Your task to perform on an android device: turn off improve location accuracy Image 0: 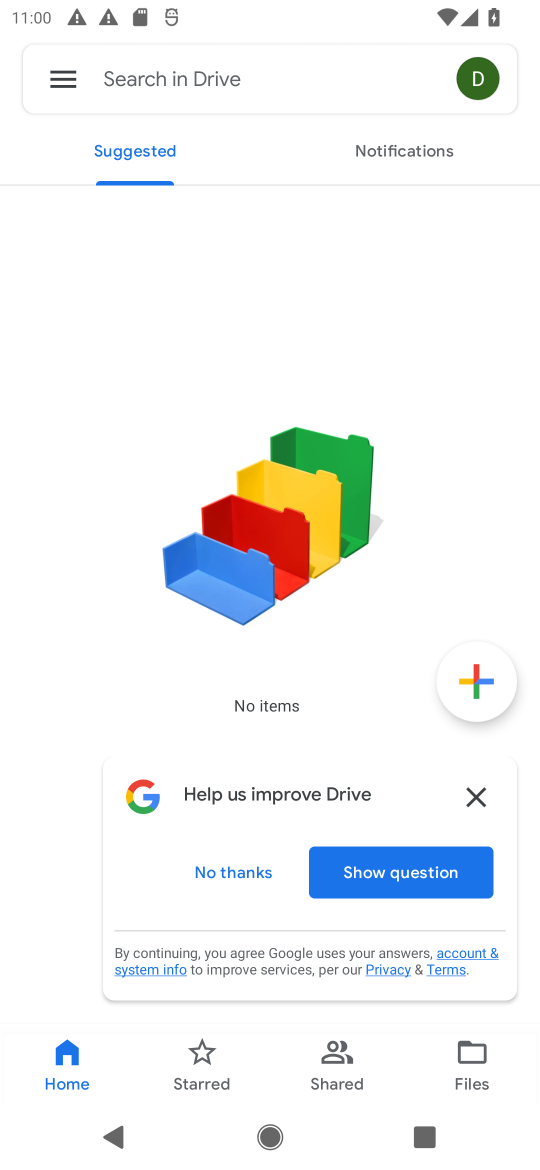
Step 0: press home button
Your task to perform on an android device: turn off improve location accuracy Image 1: 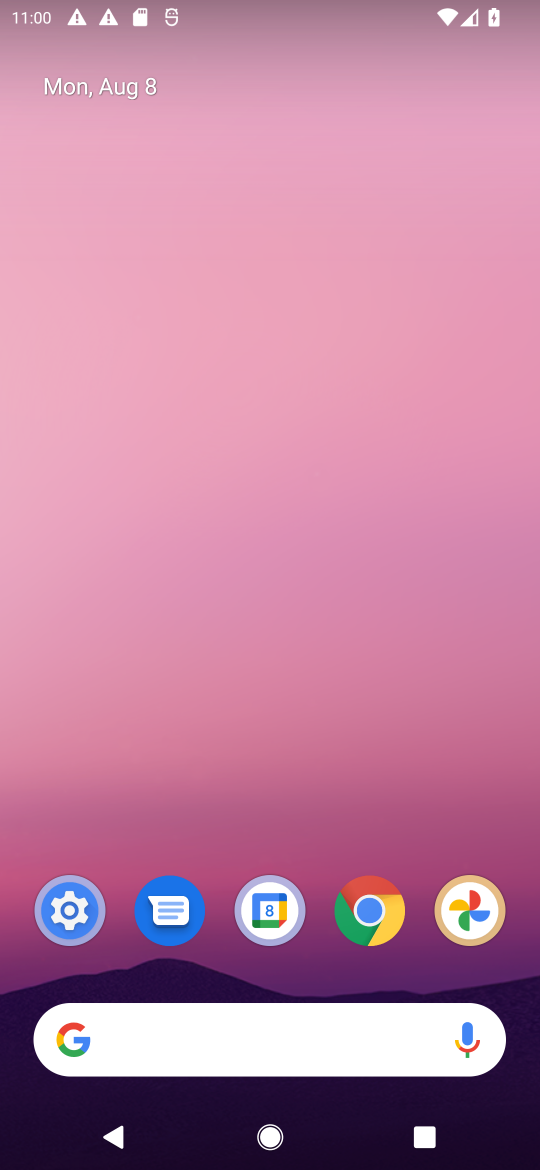
Step 1: drag from (285, 976) to (263, 10)
Your task to perform on an android device: turn off improve location accuracy Image 2: 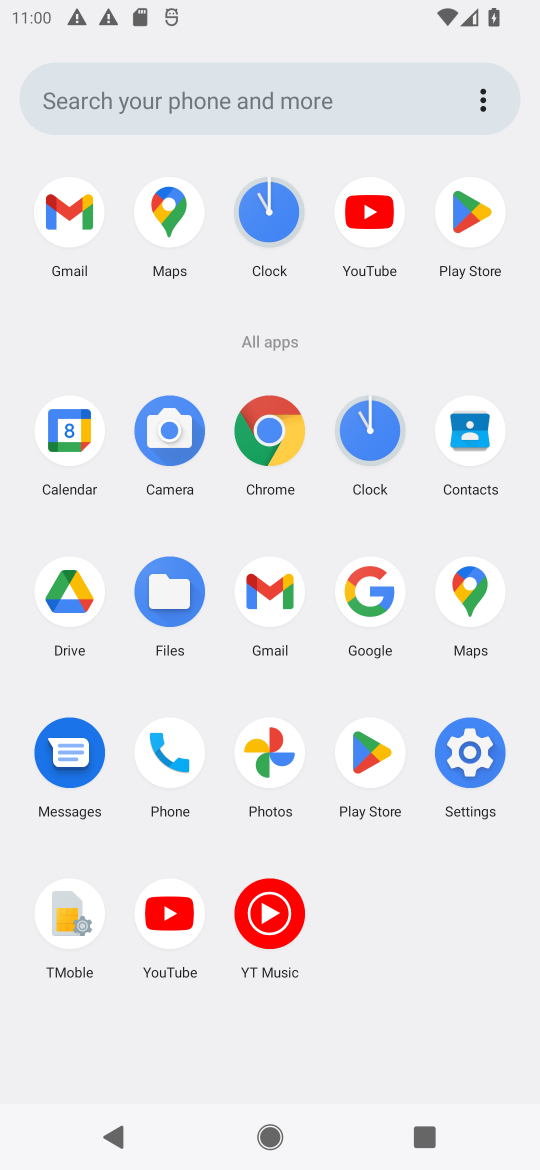
Step 2: click (465, 751)
Your task to perform on an android device: turn off improve location accuracy Image 3: 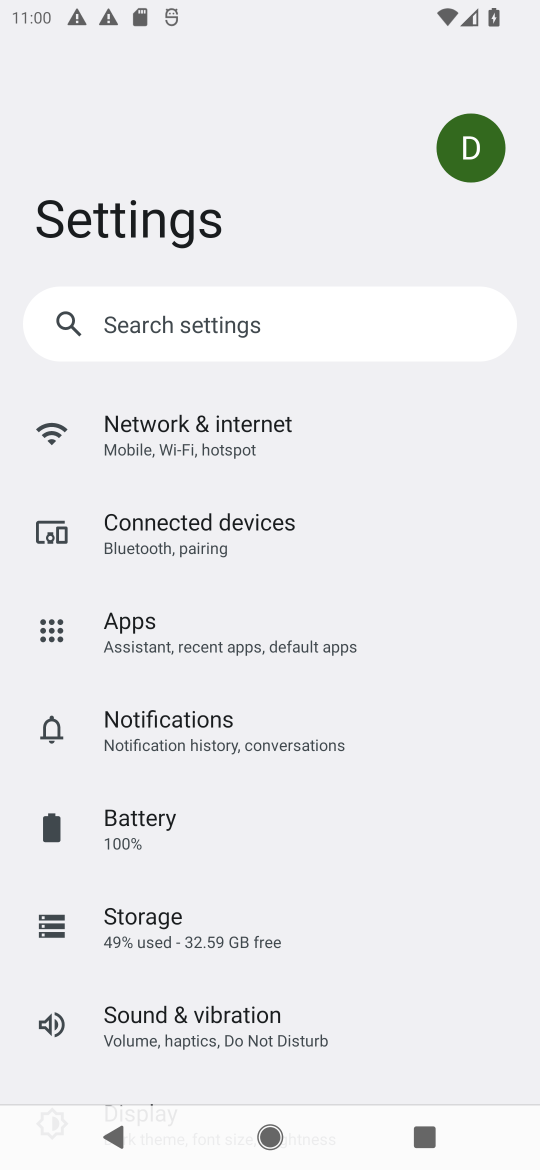
Step 3: drag from (188, 945) to (194, 409)
Your task to perform on an android device: turn off improve location accuracy Image 4: 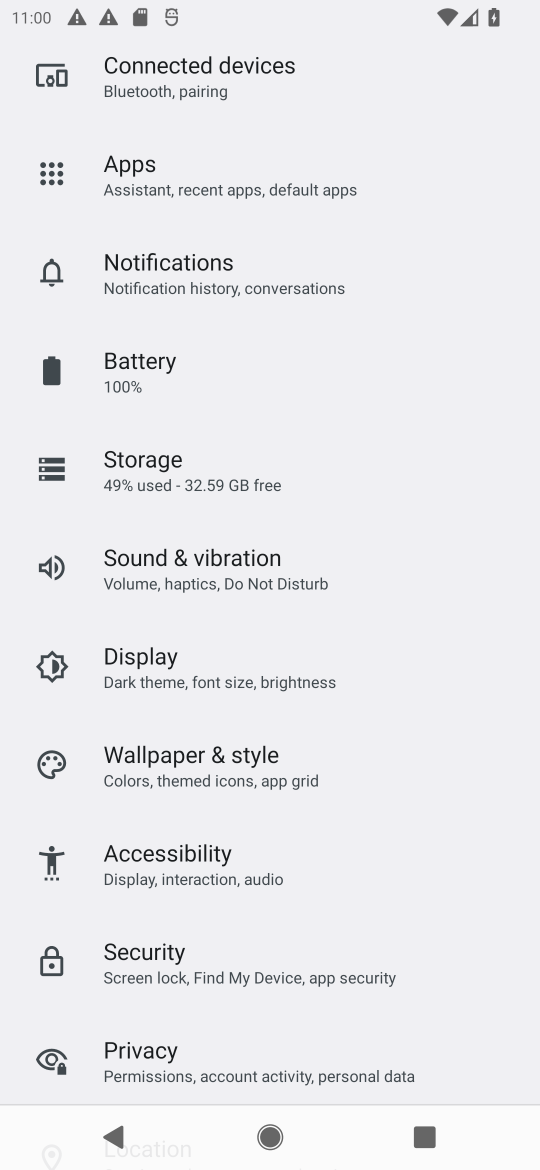
Step 4: drag from (204, 983) to (202, 361)
Your task to perform on an android device: turn off improve location accuracy Image 5: 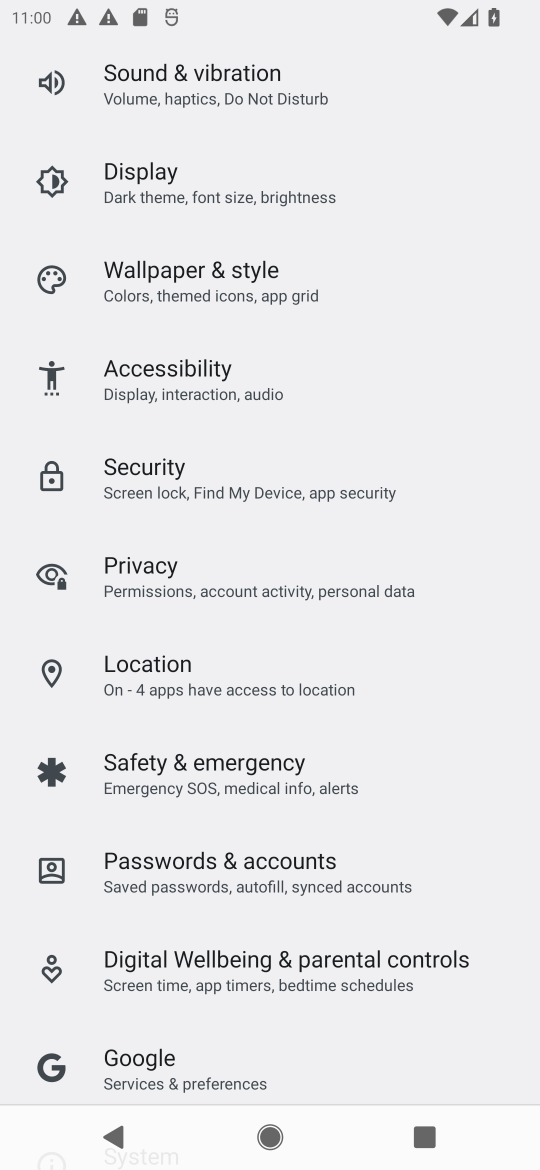
Step 5: click (159, 690)
Your task to perform on an android device: turn off improve location accuracy Image 6: 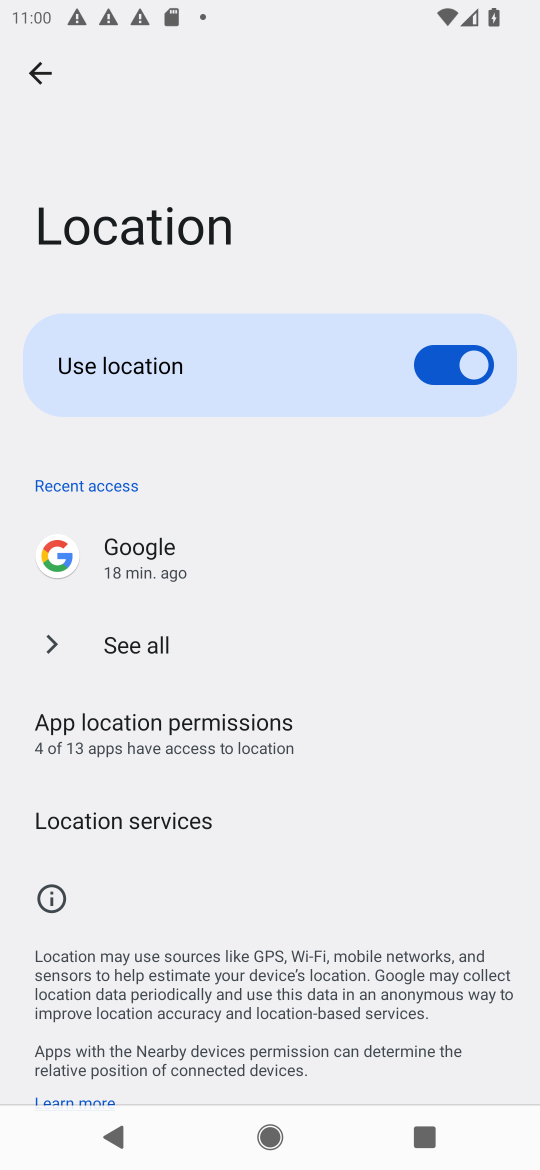
Step 6: click (156, 832)
Your task to perform on an android device: turn off improve location accuracy Image 7: 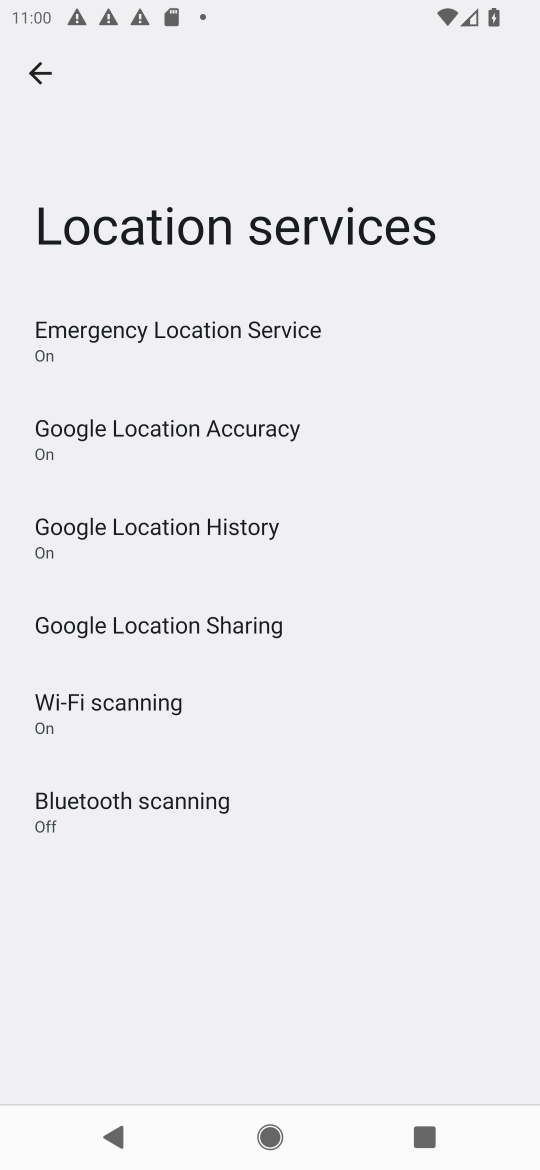
Step 7: click (166, 424)
Your task to perform on an android device: turn off improve location accuracy Image 8: 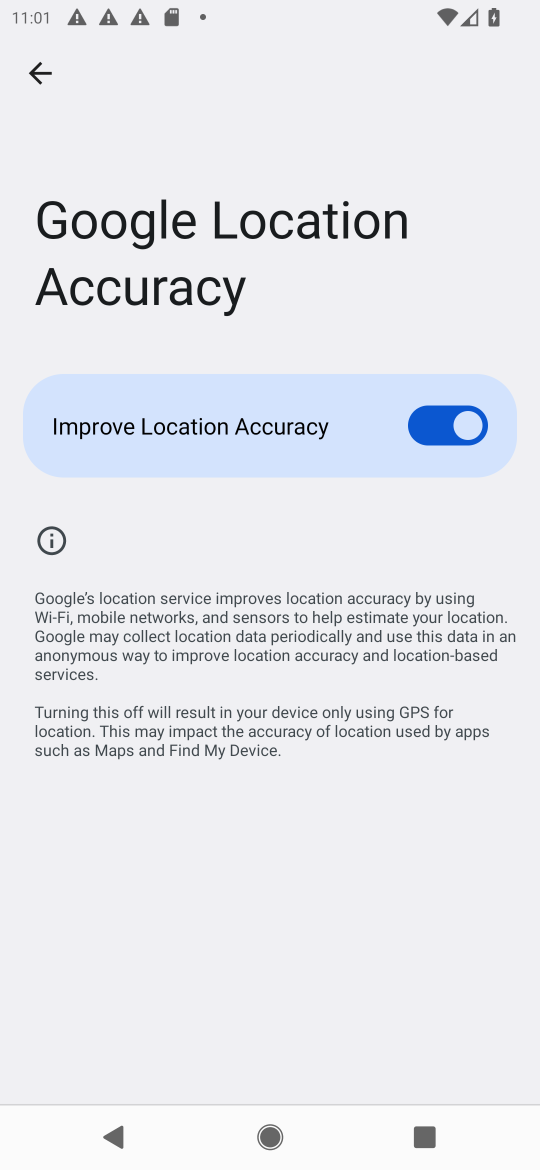
Step 8: click (439, 432)
Your task to perform on an android device: turn off improve location accuracy Image 9: 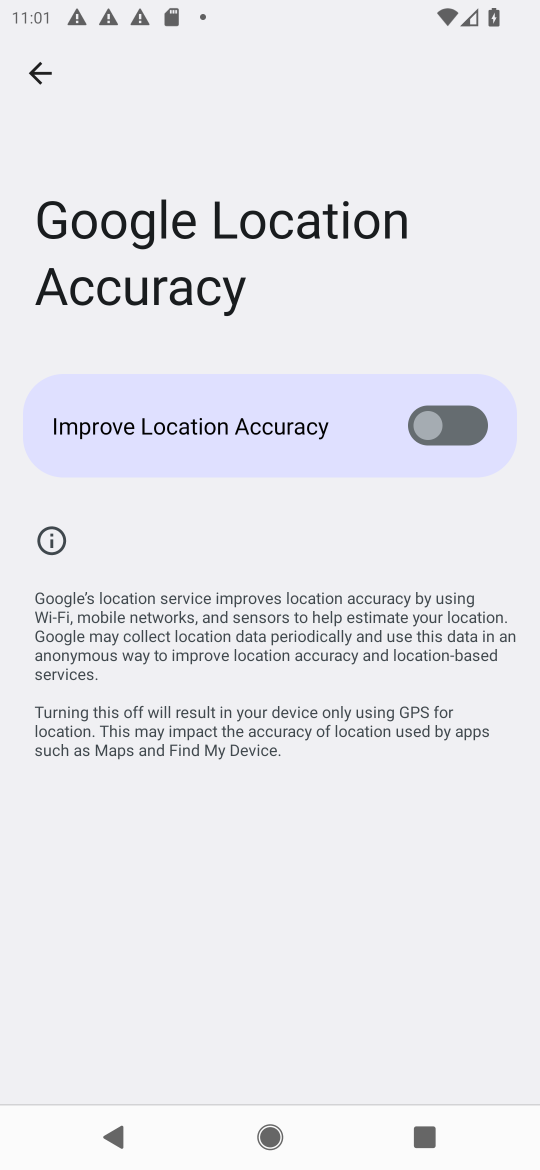
Step 9: task complete